Your task to perform on an android device: open app "Google News" Image 0: 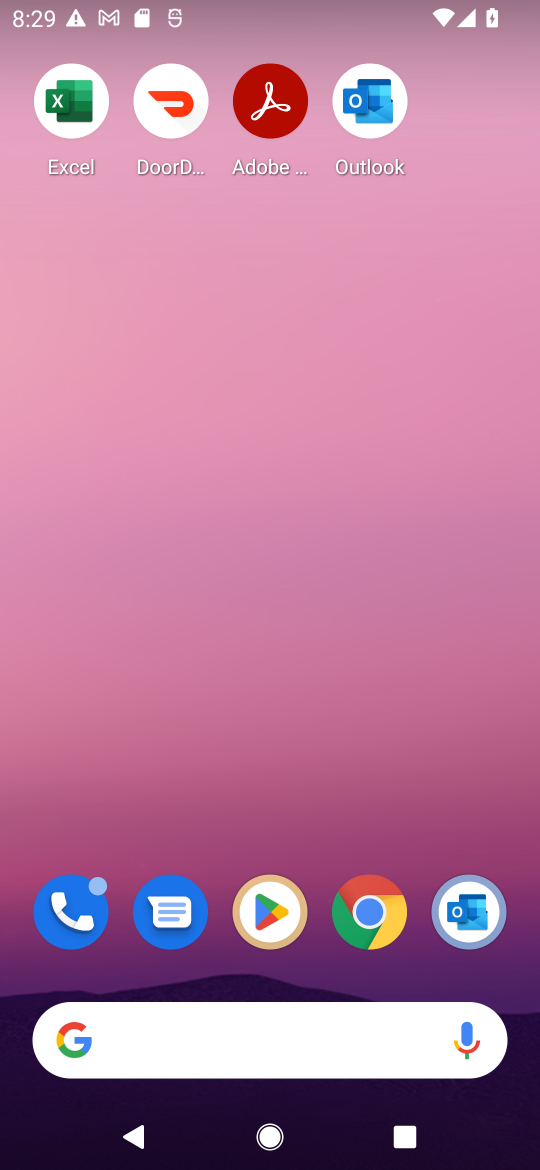
Step 0: drag from (169, 1058) to (231, 11)
Your task to perform on an android device: open app "Google News" Image 1: 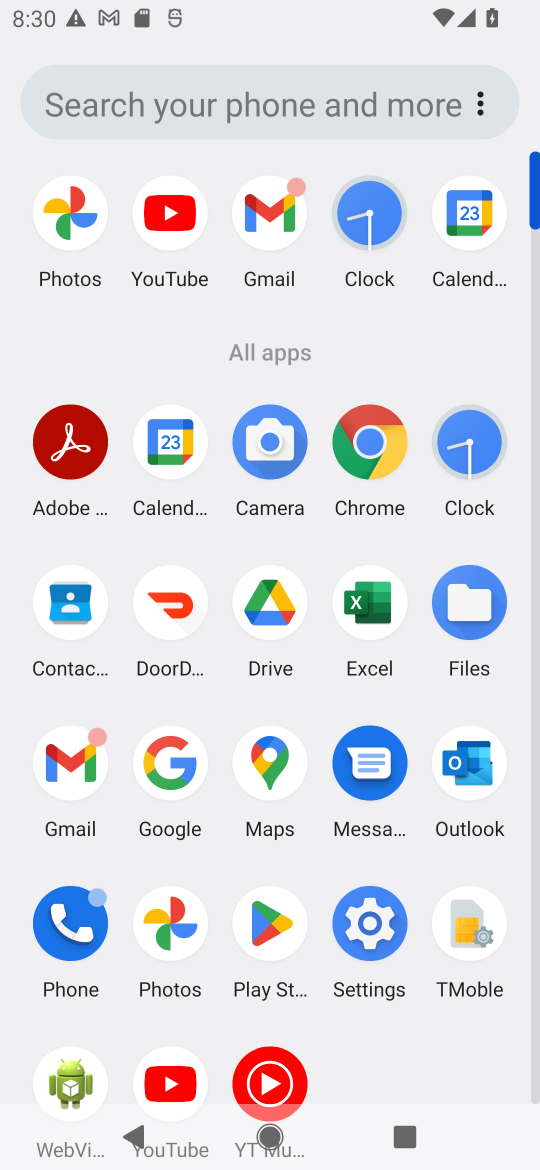
Step 1: click (274, 933)
Your task to perform on an android device: open app "Google News" Image 2: 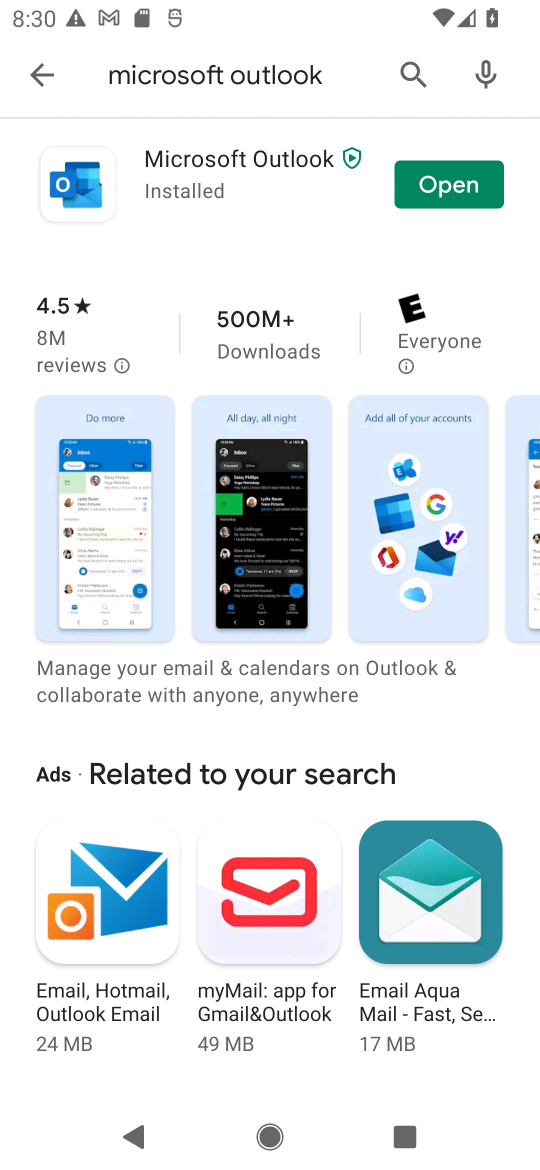
Step 2: press back button
Your task to perform on an android device: open app "Google News" Image 3: 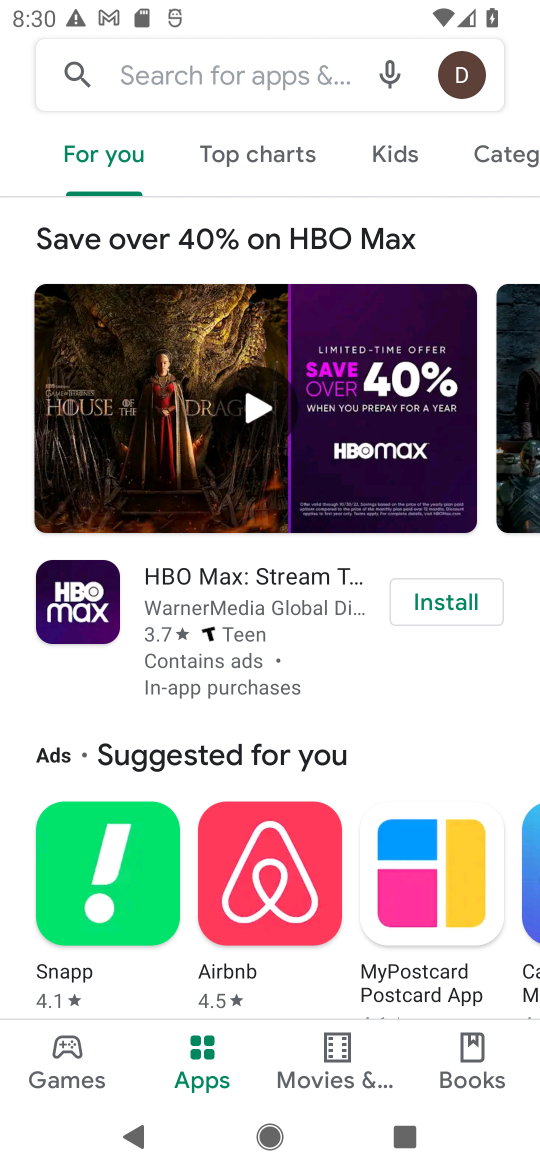
Step 3: click (317, 83)
Your task to perform on an android device: open app "Google News" Image 4: 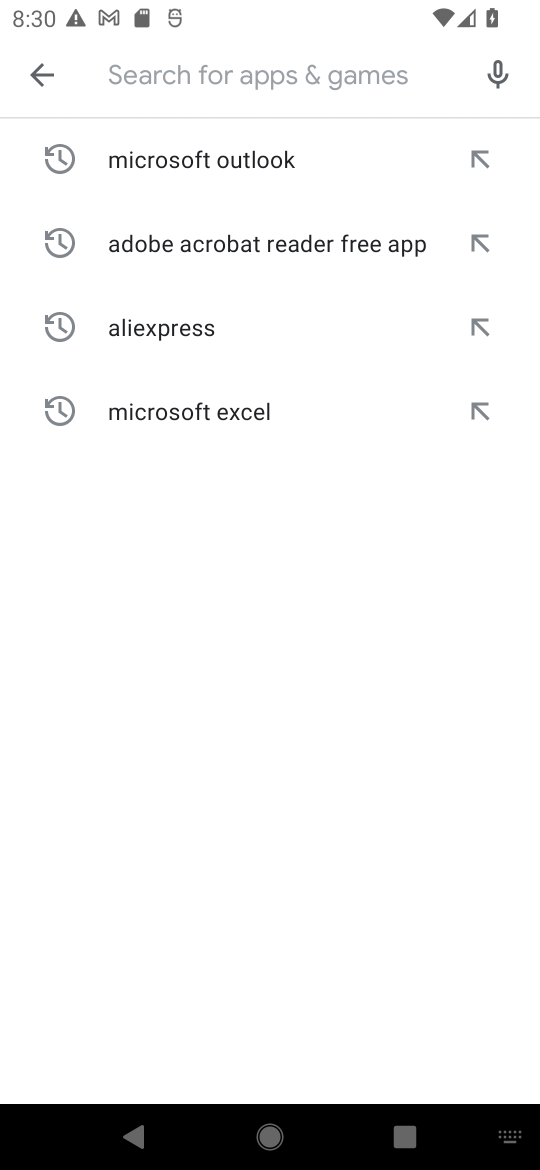
Step 4: type "Google News"
Your task to perform on an android device: open app "Google News" Image 5: 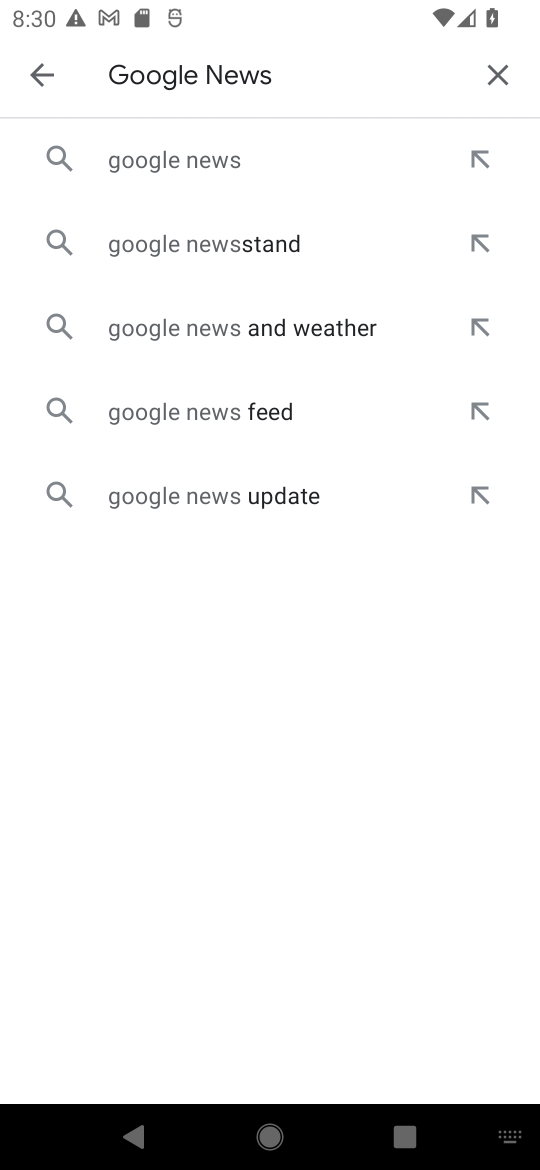
Step 5: click (209, 174)
Your task to perform on an android device: open app "Google News" Image 6: 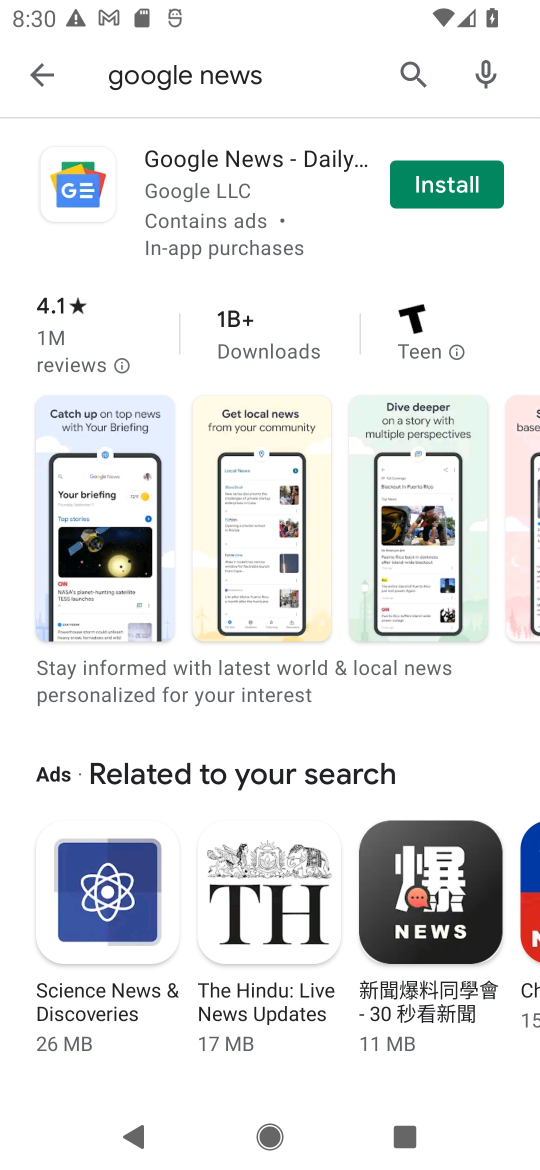
Step 6: task complete